Your task to perform on an android device: Open the map Image 0: 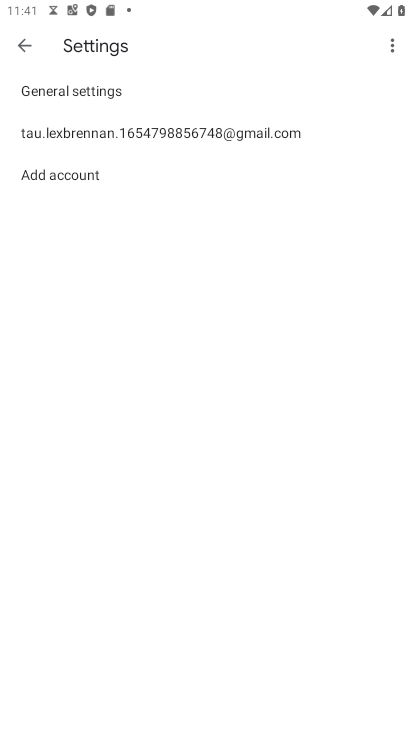
Step 0: drag from (23, 712) to (157, 267)
Your task to perform on an android device: Open the map Image 1: 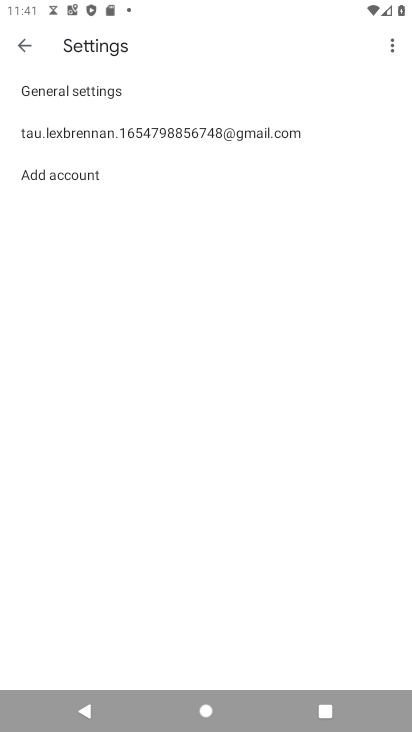
Step 1: press home button
Your task to perform on an android device: Open the map Image 2: 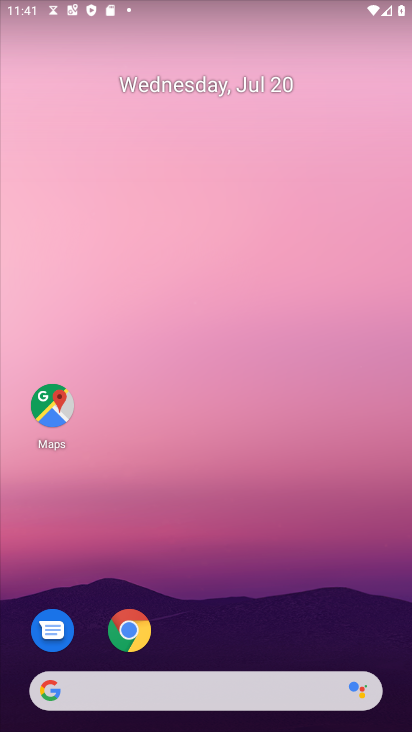
Step 2: click (53, 412)
Your task to perform on an android device: Open the map Image 3: 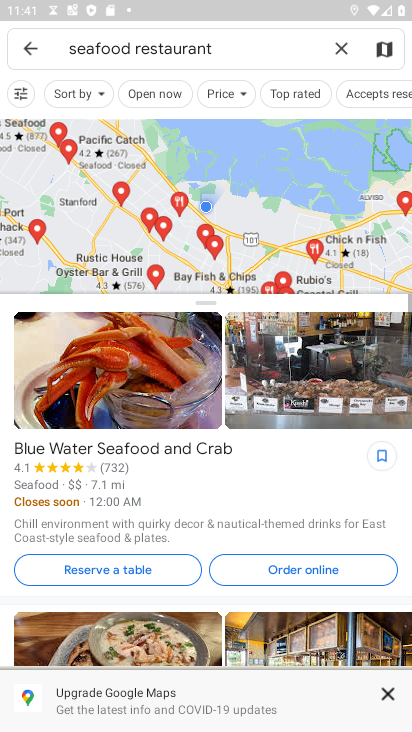
Step 3: click (342, 44)
Your task to perform on an android device: Open the map Image 4: 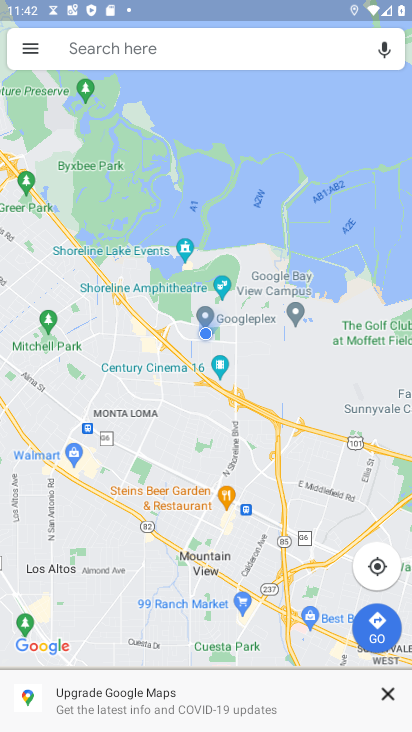
Step 4: task complete